Your task to perform on an android device: Search for Mexican restaurants on Maps Image 0: 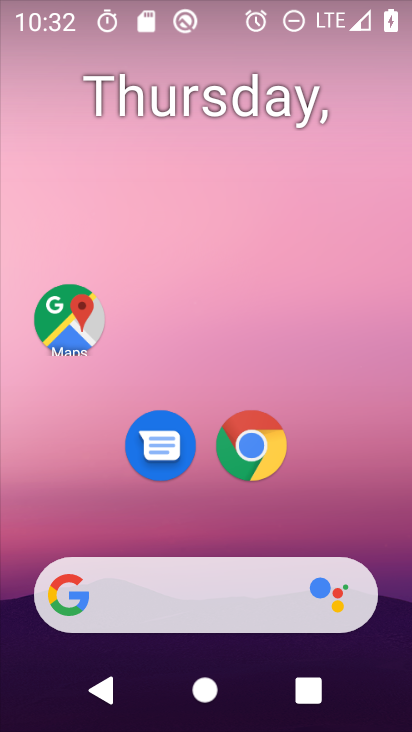
Step 0: drag from (194, 520) to (253, 247)
Your task to perform on an android device: Search for Mexican restaurants on Maps Image 1: 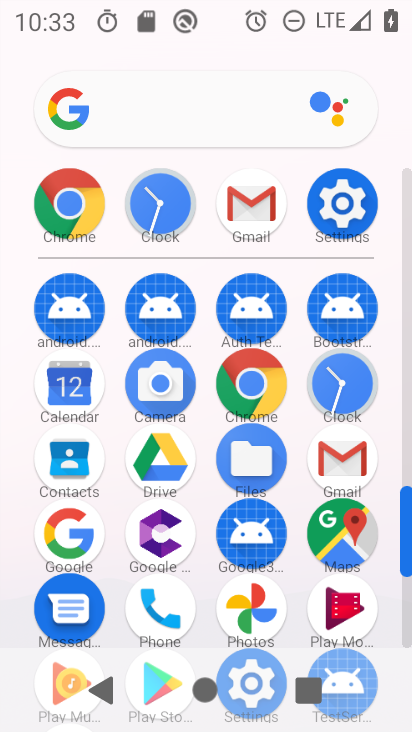
Step 1: click (326, 542)
Your task to perform on an android device: Search for Mexican restaurants on Maps Image 2: 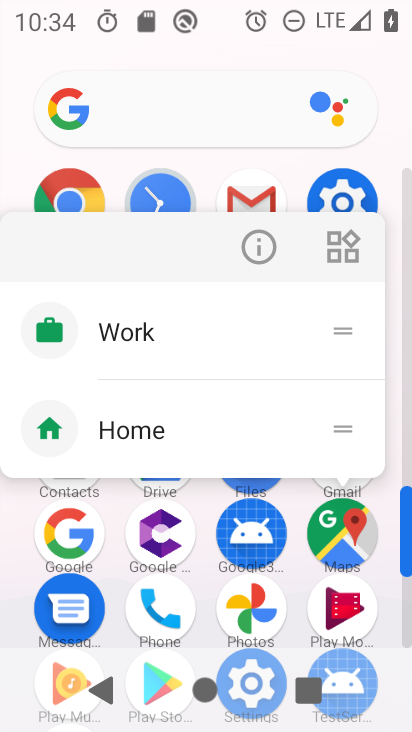
Step 2: click (270, 255)
Your task to perform on an android device: Search for Mexican restaurants on Maps Image 3: 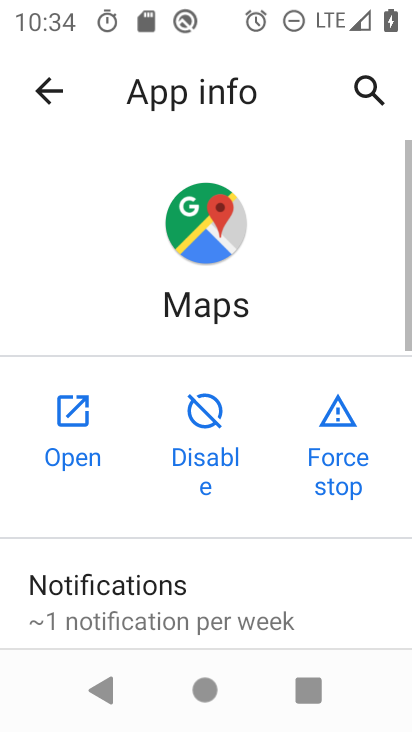
Step 3: click (58, 429)
Your task to perform on an android device: Search for Mexican restaurants on Maps Image 4: 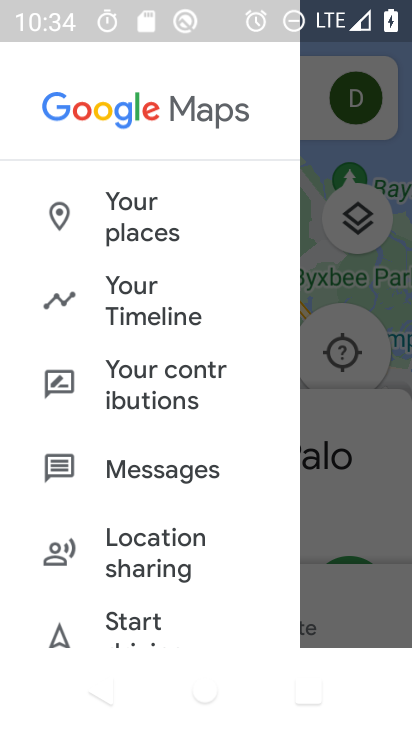
Step 4: drag from (154, 555) to (202, 132)
Your task to perform on an android device: Search for Mexican restaurants on Maps Image 5: 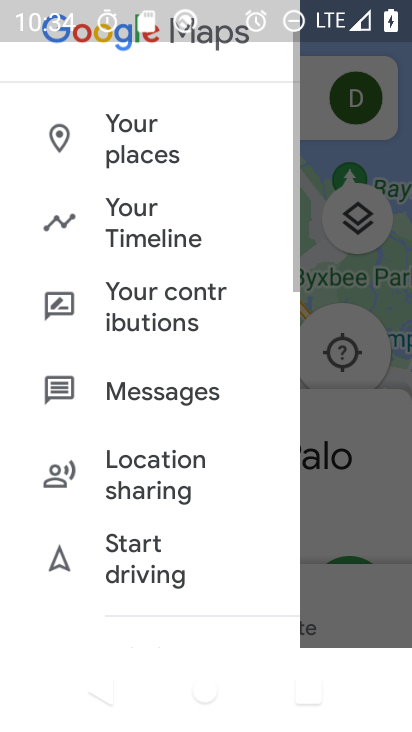
Step 5: drag from (202, 127) to (13, 418)
Your task to perform on an android device: Search for Mexican restaurants on Maps Image 6: 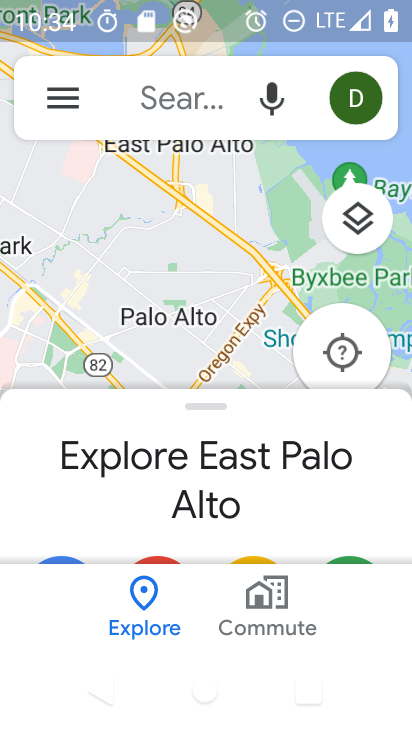
Step 6: click (201, 115)
Your task to perform on an android device: Search for Mexican restaurants on Maps Image 7: 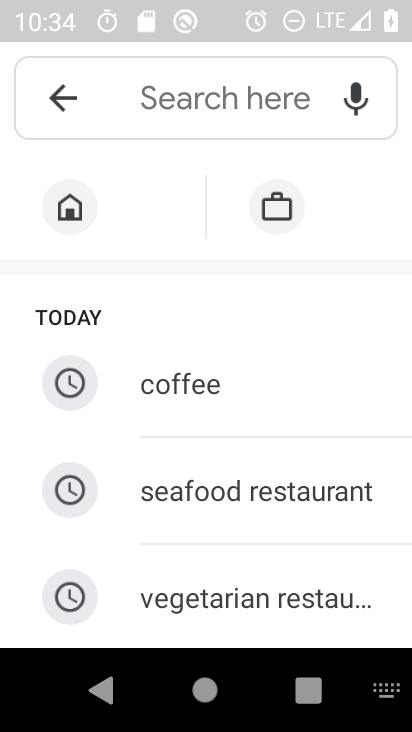
Step 7: drag from (249, 580) to (251, 223)
Your task to perform on an android device: Search for Mexican restaurants on Maps Image 8: 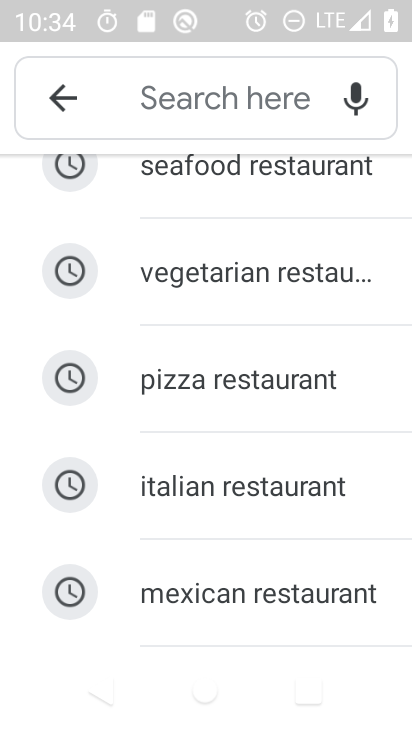
Step 8: click (213, 569)
Your task to perform on an android device: Search for Mexican restaurants on Maps Image 9: 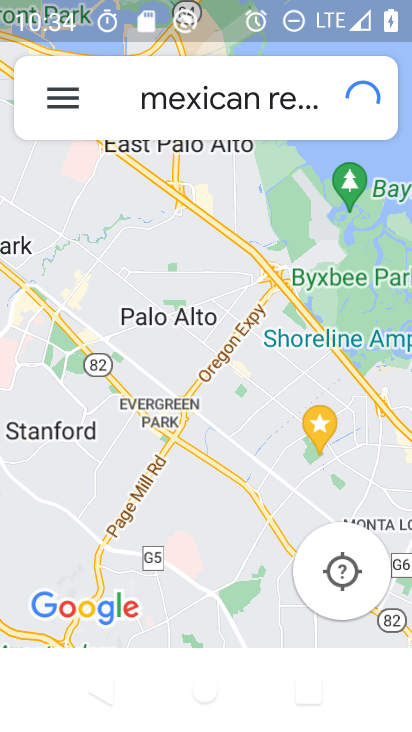
Step 9: task complete